Your task to perform on an android device: Open Google Maps Image 0: 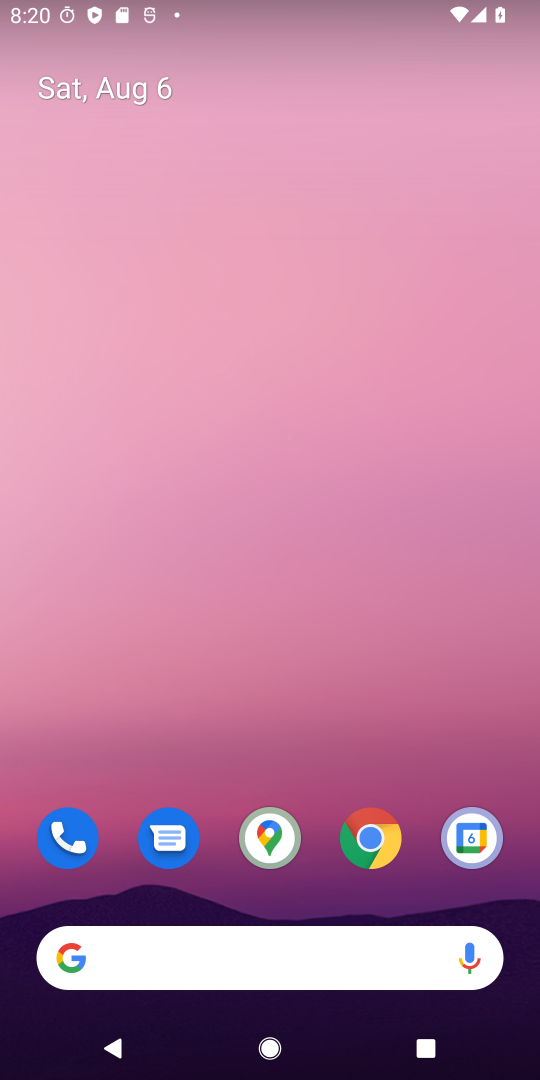
Step 0: click (265, 823)
Your task to perform on an android device: Open Google Maps Image 1: 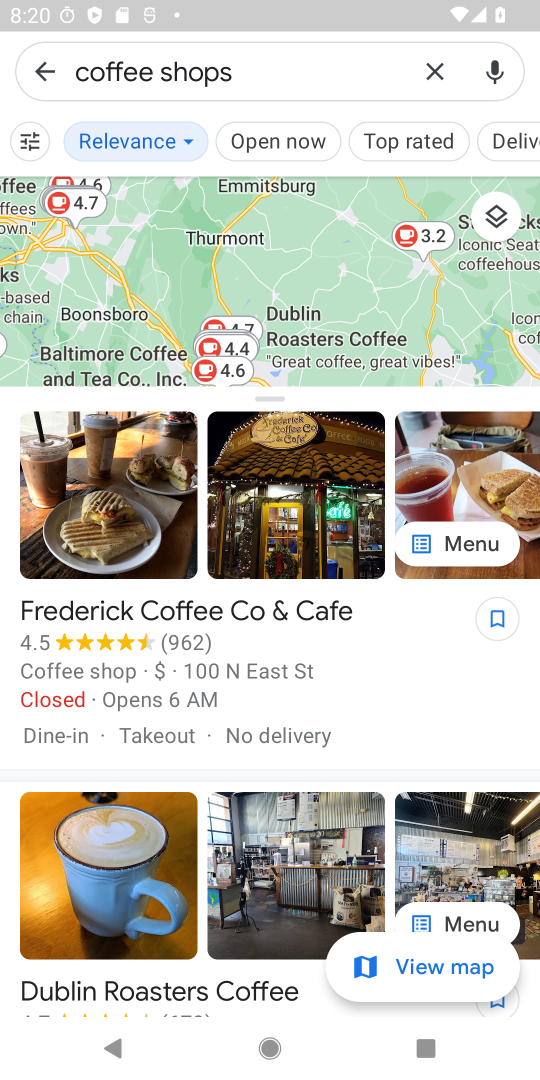
Step 1: task complete